Your task to perform on an android device: turn off notifications settings in the gmail app Image 0: 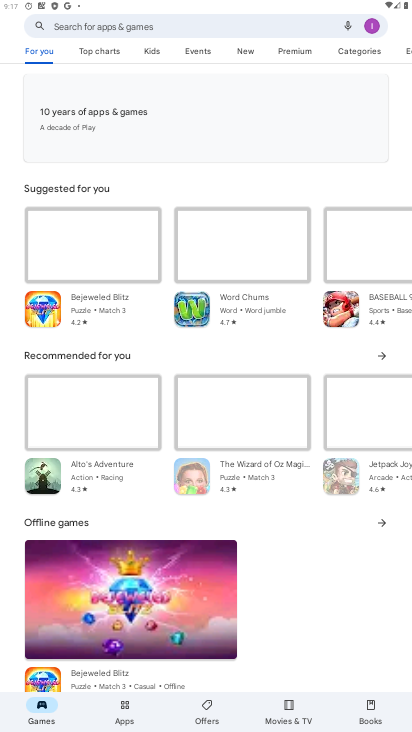
Step 0: drag from (223, 511) to (233, 251)
Your task to perform on an android device: turn off notifications settings in the gmail app Image 1: 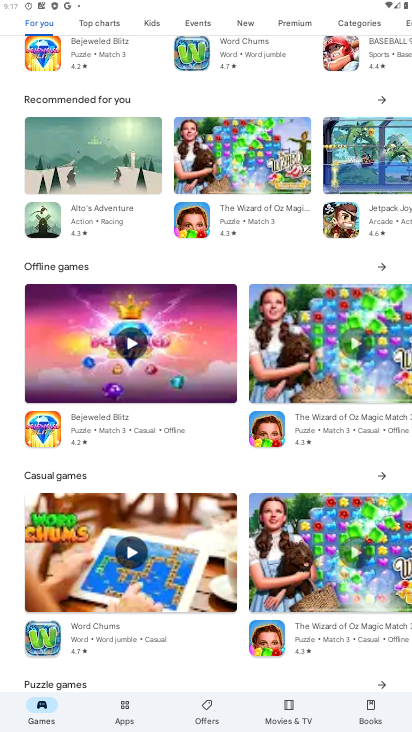
Step 1: press home button
Your task to perform on an android device: turn off notifications settings in the gmail app Image 2: 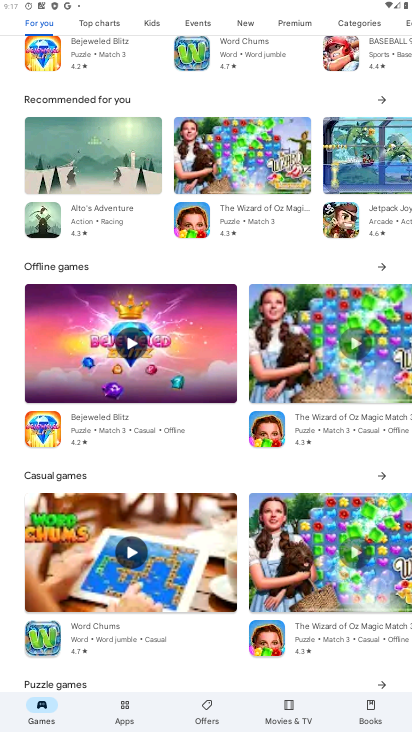
Step 2: press home button
Your task to perform on an android device: turn off notifications settings in the gmail app Image 3: 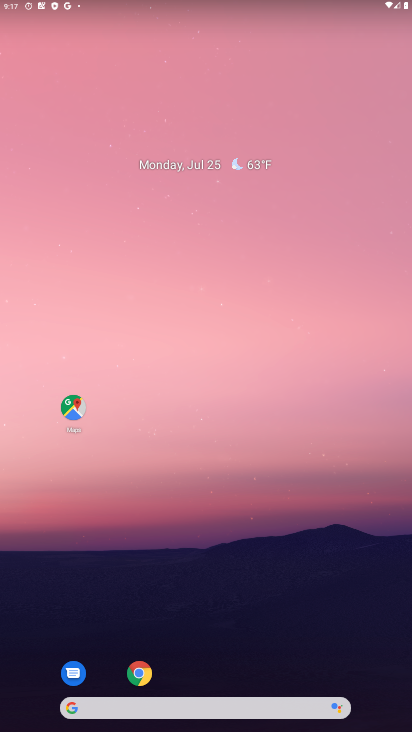
Step 3: drag from (175, 680) to (160, 143)
Your task to perform on an android device: turn off notifications settings in the gmail app Image 4: 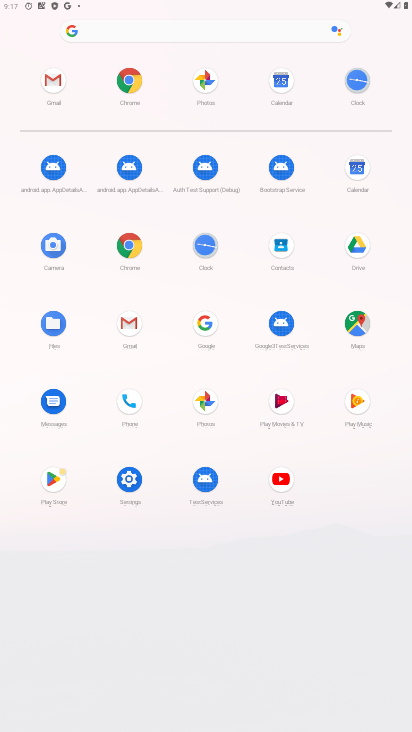
Step 4: click (126, 314)
Your task to perform on an android device: turn off notifications settings in the gmail app Image 5: 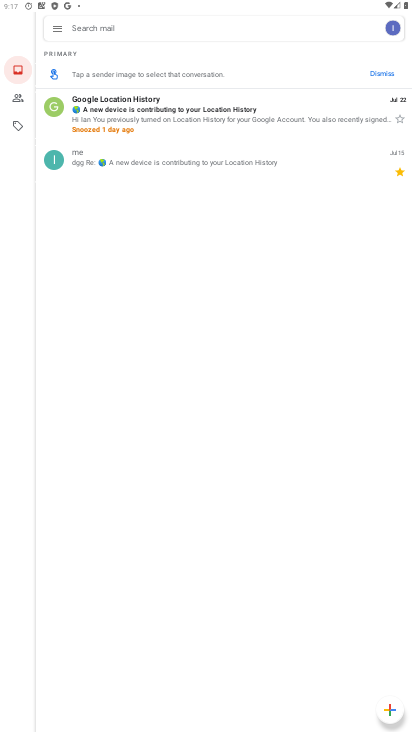
Step 5: click (55, 27)
Your task to perform on an android device: turn off notifications settings in the gmail app Image 6: 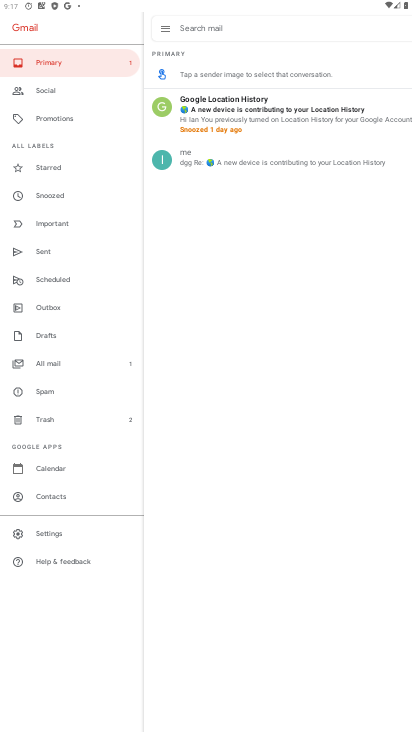
Step 6: click (24, 544)
Your task to perform on an android device: turn off notifications settings in the gmail app Image 7: 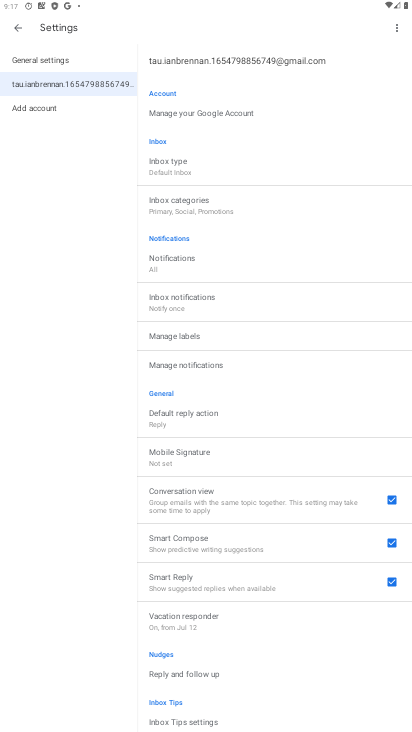
Step 7: drag from (232, 546) to (218, 10)
Your task to perform on an android device: turn off notifications settings in the gmail app Image 8: 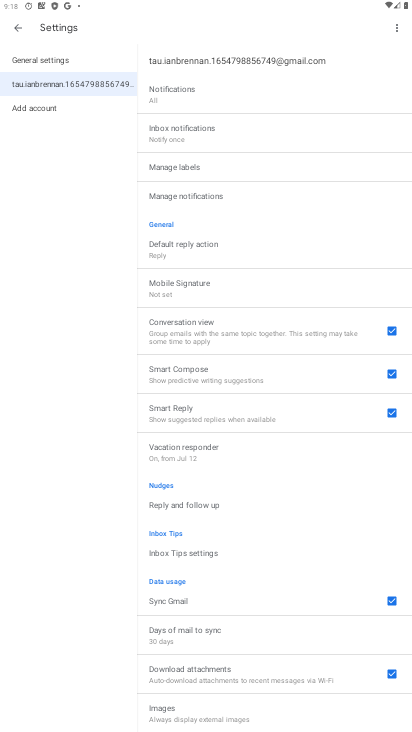
Step 8: click (213, 189)
Your task to perform on an android device: turn off notifications settings in the gmail app Image 9: 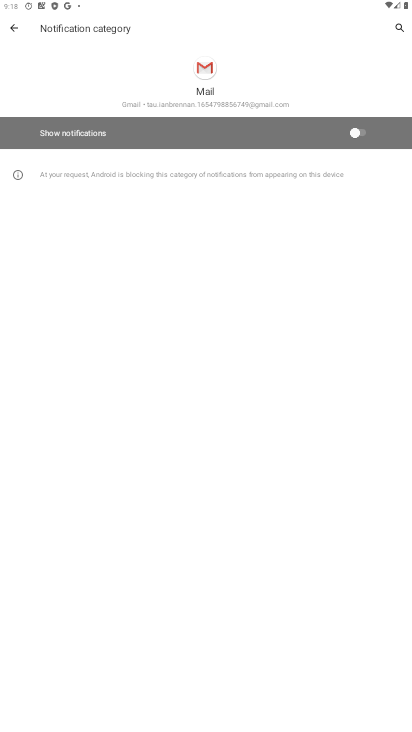
Step 9: task complete